Your task to perform on an android device: Open Wikipedia Image 0: 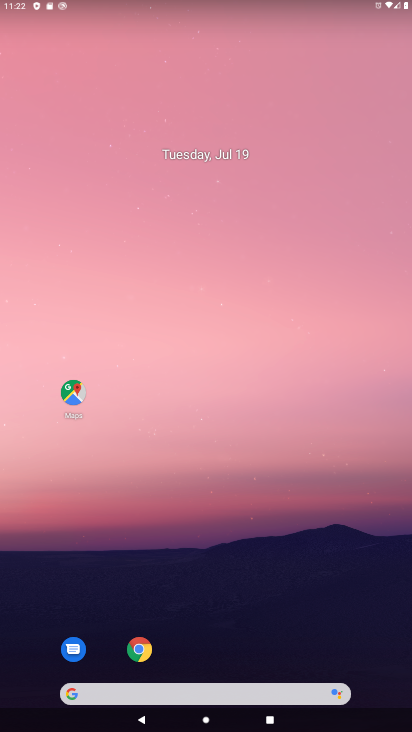
Step 0: drag from (155, 575) to (276, 0)
Your task to perform on an android device: Open Wikipedia Image 1: 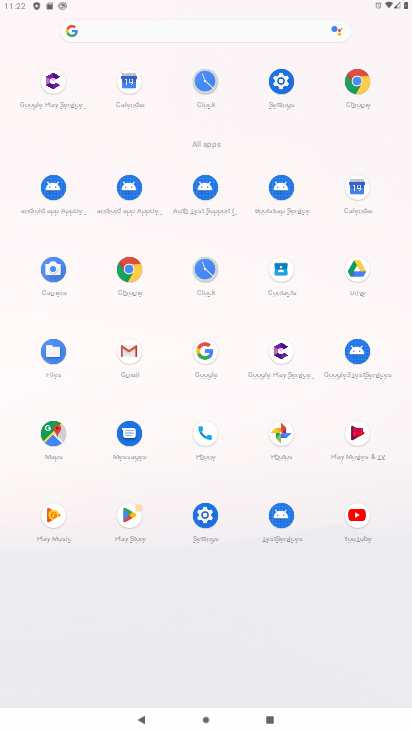
Step 1: click (133, 271)
Your task to perform on an android device: Open Wikipedia Image 2: 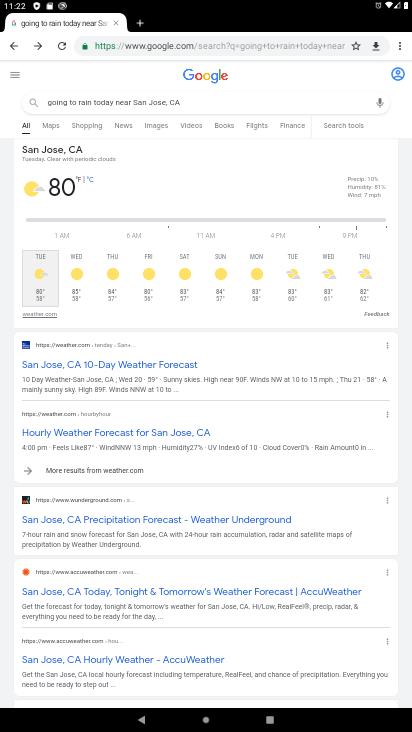
Step 2: click (171, 50)
Your task to perform on an android device: Open Wikipedia Image 3: 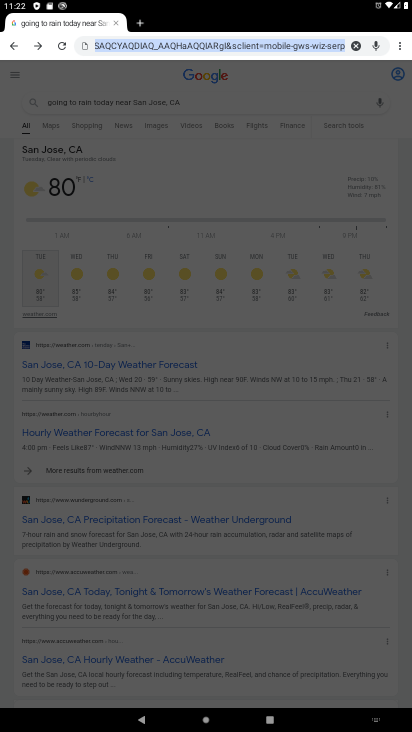
Step 3: click (171, 50)
Your task to perform on an android device: Open Wikipedia Image 4: 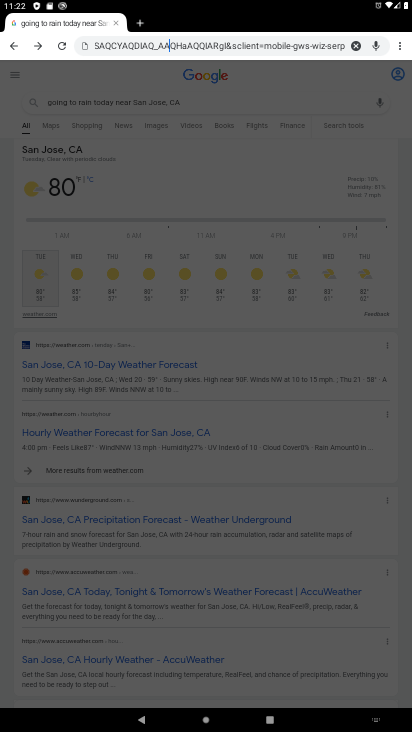
Step 4: type "wikipedia"
Your task to perform on an android device: Open Wikipedia Image 5: 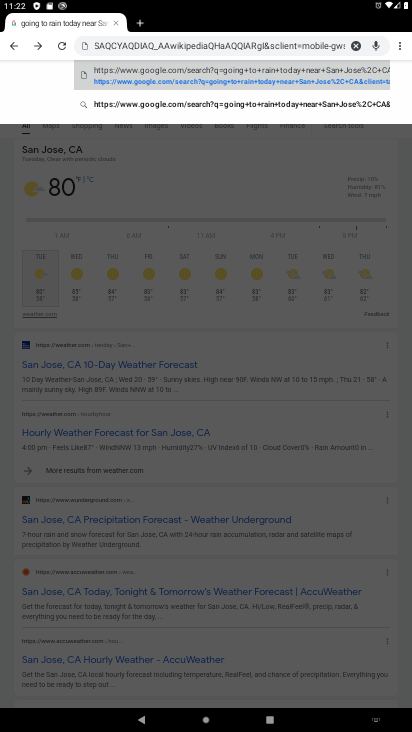
Step 5: click (337, 43)
Your task to perform on an android device: Open Wikipedia Image 6: 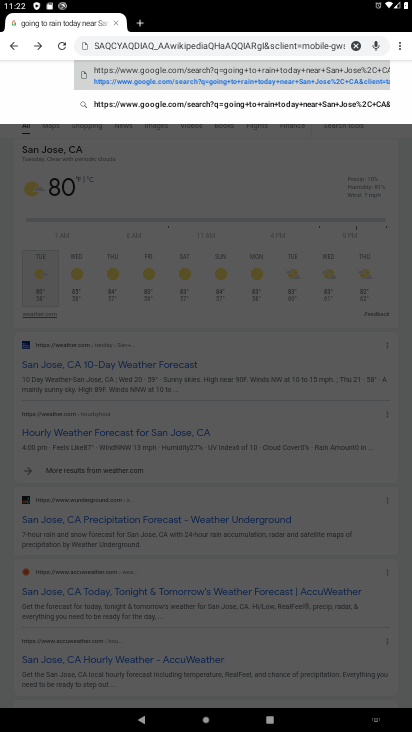
Step 6: click (337, 43)
Your task to perform on an android device: Open Wikipedia Image 7: 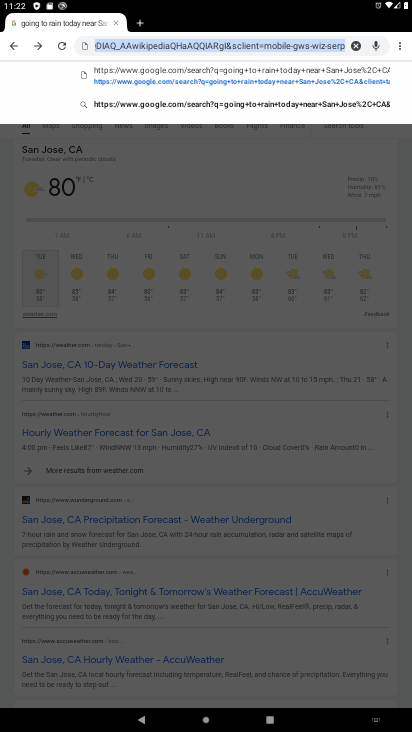
Step 7: click (337, 43)
Your task to perform on an android device: Open Wikipedia Image 8: 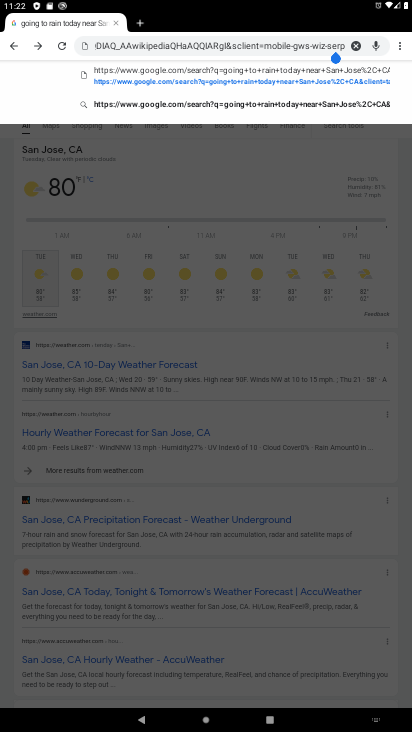
Step 8: click (355, 45)
Your task to perform on an android device: Open Wikipedia Image 9: 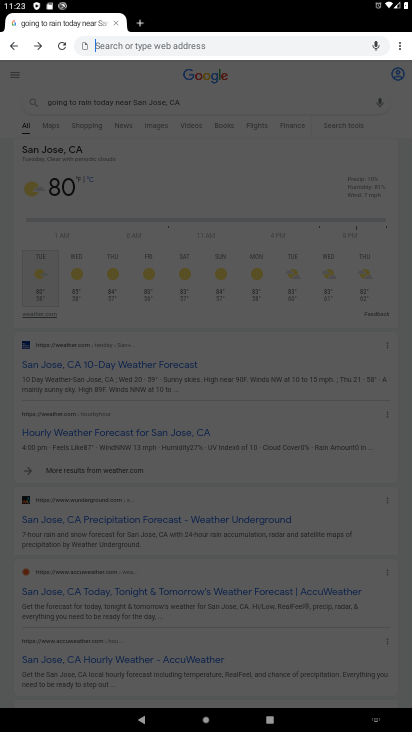
Step 9: type "wikipedia"
Your task to perform on an android device: Open Wikipedia Image 10: 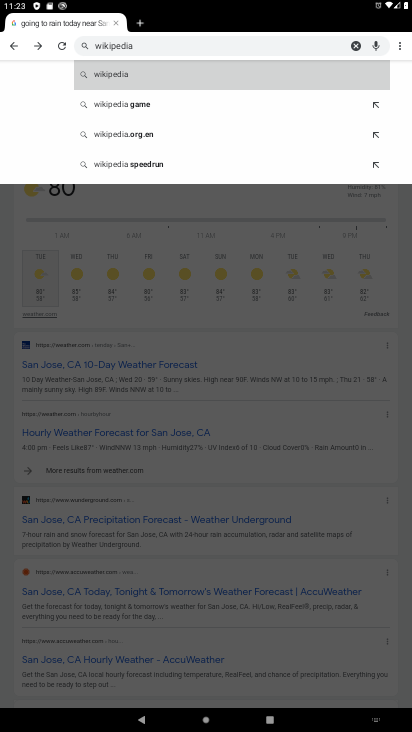
Step 10: click (295, 79)
Your task to perform on an android device: Open Wikipedia Image 11: 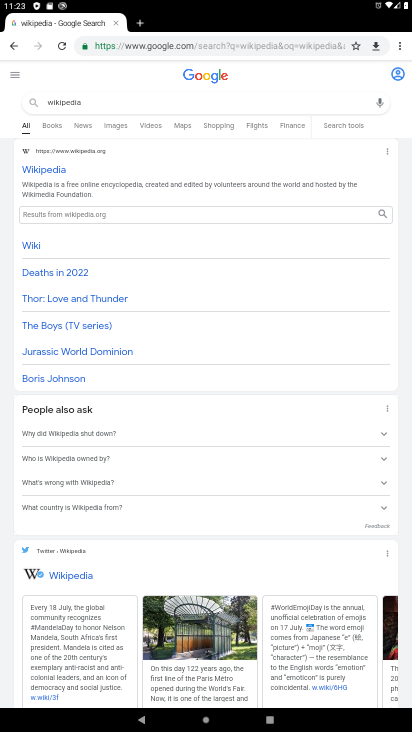
Step 11: task complete